Your task to perform on an android device: Open Yahoo.com Image 0: 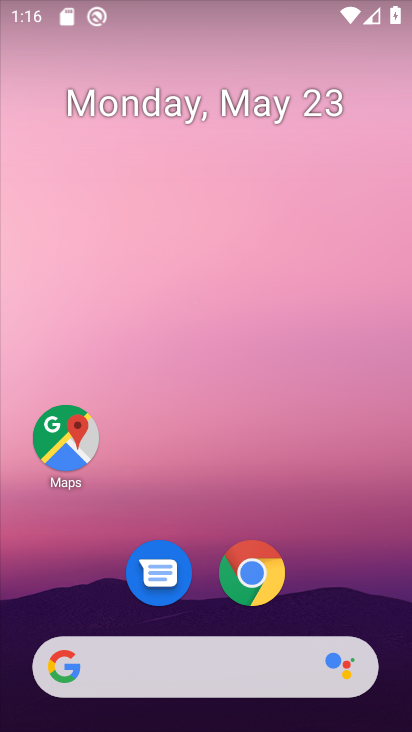
Step 0: click (262, 566)
Your task to perform on an android device: Open Yahoo.com Image 1: 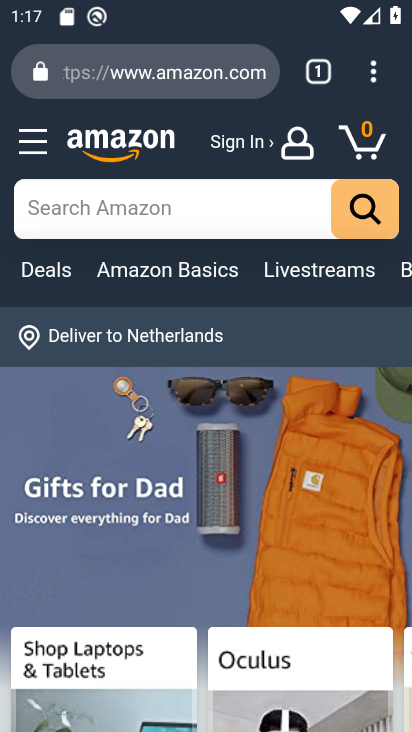
Step 1: click (326, 68)
Your task to perform on an android device: Open Yahoo.com Image 2: 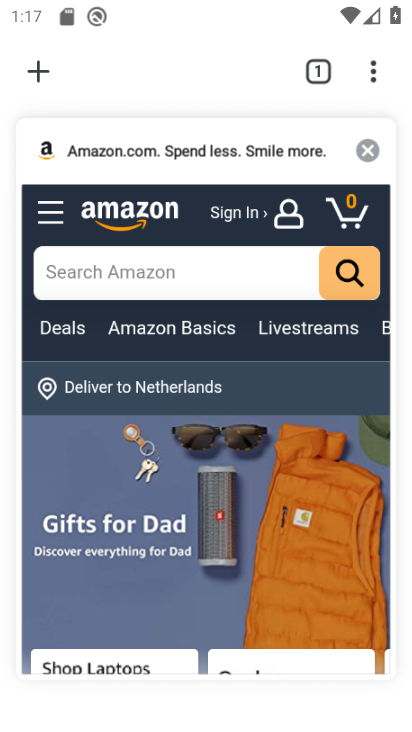
Step 2: click (44, 72)
Your task to perform on an android device: Open Yahoo.com Image 3: 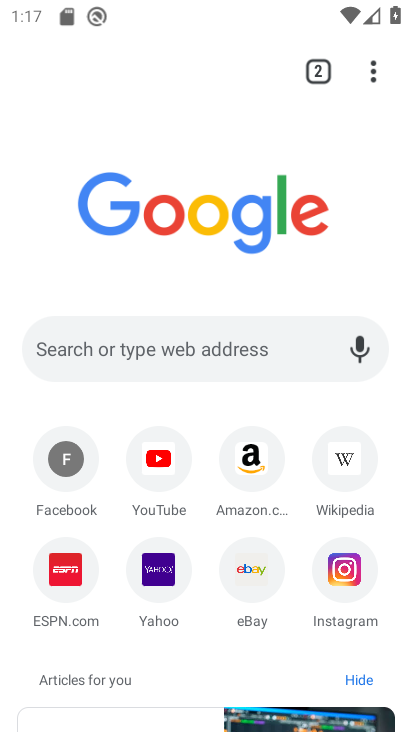
Step 3: click (166, 572)
Your task to perform on an android device: Open Yahoo.com Image 4: 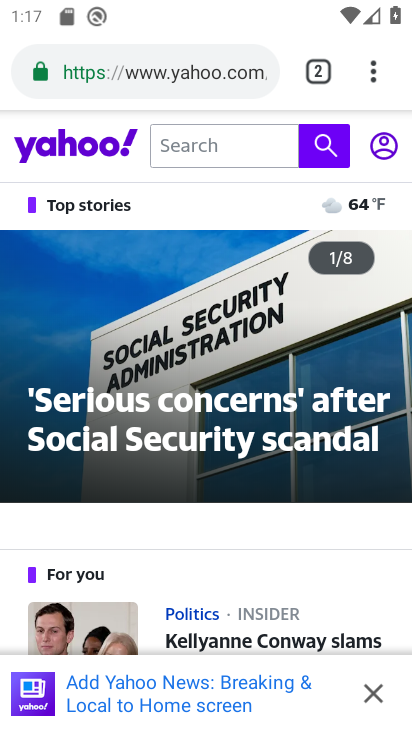
Step 4: task complete